Your task to perform on an android device: Open settings on Google Maps Image 0: 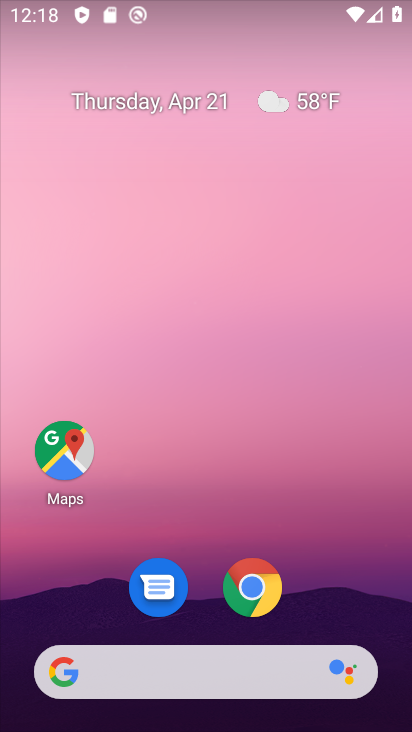
Step 0: click (235, 372)
Your task to perform on an android device: Open settings on Google Maps Image 1: 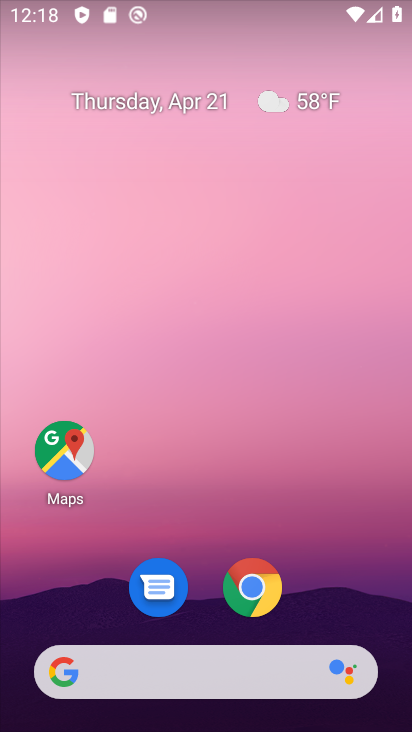
Step 1: click (73, 429)
Your task to perform on an android device: Open settings on Google Maps Image 2: 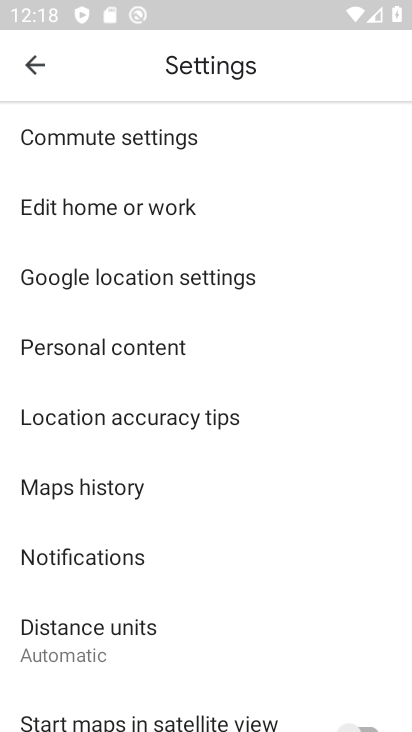
Step 2: task complete